Your task to perform on an android device: Open calendar and show me the fourth week of next month Image 0: 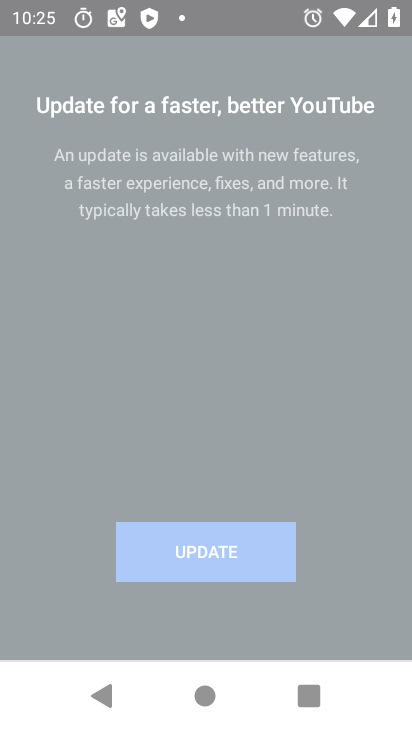
Step 0: drag from (214, 724) to (220, 121)
Your task to perform on an android device: Open calendar and show me the fourth week of next month Image 1: 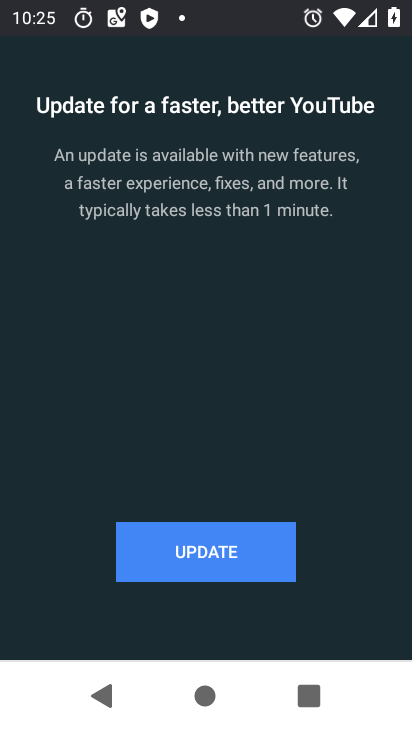
Step 1: press home button
Your task to perform on an android device: Open calendar and show me the fourth week of next month Image 2: 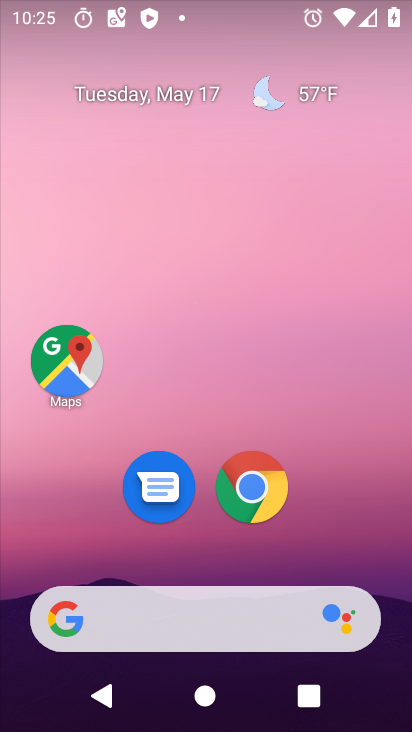
Step 2: drag from (230, 716) to (227, 87)
Your task to perform on an android device: Open calendar and show me the fourth week of next month Image 3: 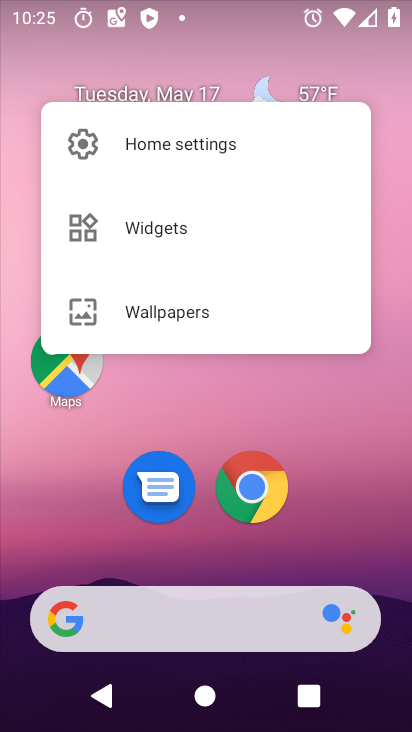
Step 3: click (198, 404)
Your task to perform on an android device: Open calendar and show me the fourth week of next month Image 4: 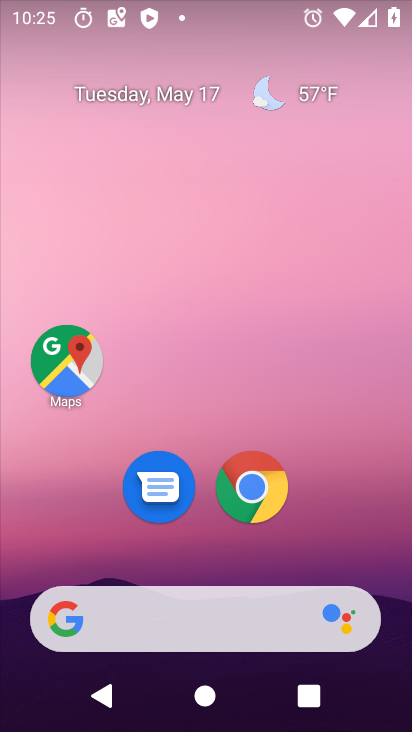
Step 4: drag from (234, 721) to (244, 47)
Your task to perform on an android device: Open calendar and show me the fourth week of next month Image 5: 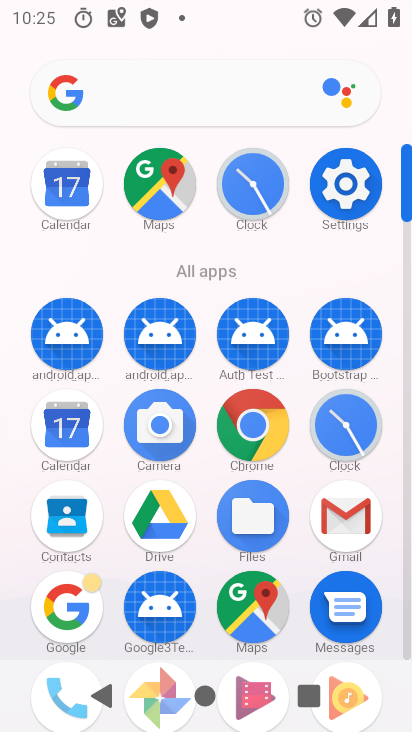
Step 5: click (54, 432)
Your task to perform on an android device: Open calendar and show me the fourth week of next month Image 6: 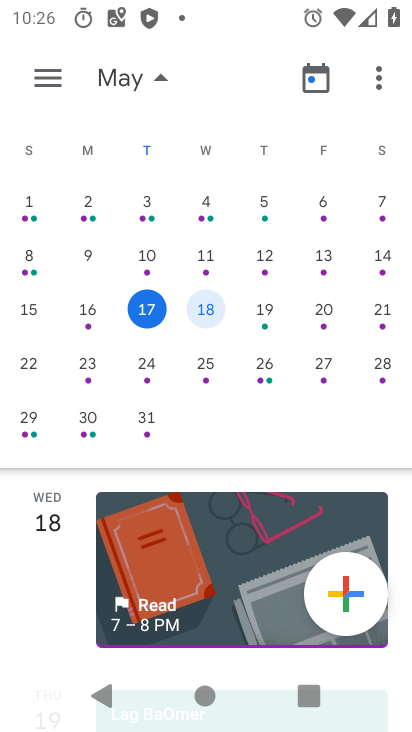
Step 6: drag from (366, 326) to (222, 319)
Your task to perform on an android device: Open calendar and show me the fourth week of next month Image 7: 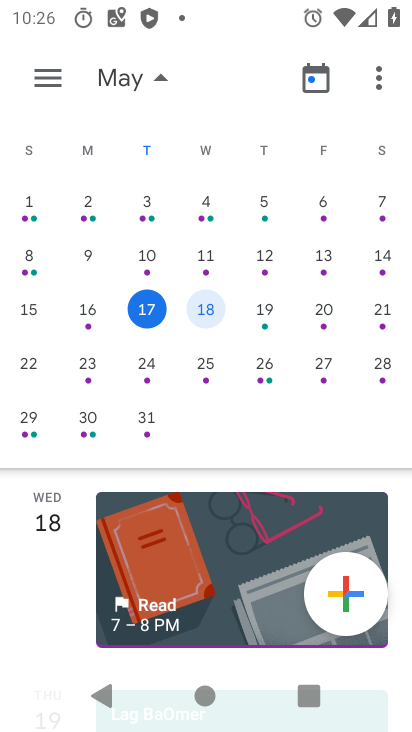
Step 7: drag from (117, 322) to (19, 309)
Your task to perform on an android device: Open calendar and show me the fourth week of next month Image 8: 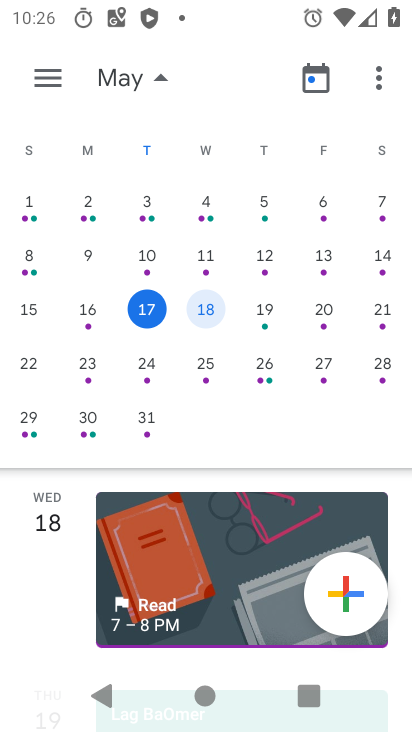
Step 8: drag from (362, 305) to (11, 526)
Your task to perform on an android device: Open calendar and show me the fourth week of next month Image 9: 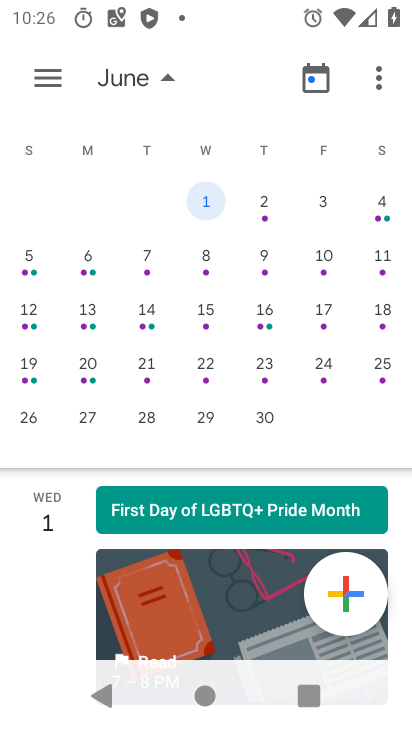
Step 9: click (78, 410)
Your task to perform on an android device: Open calendar and show me the fourth week of next month Image 10: 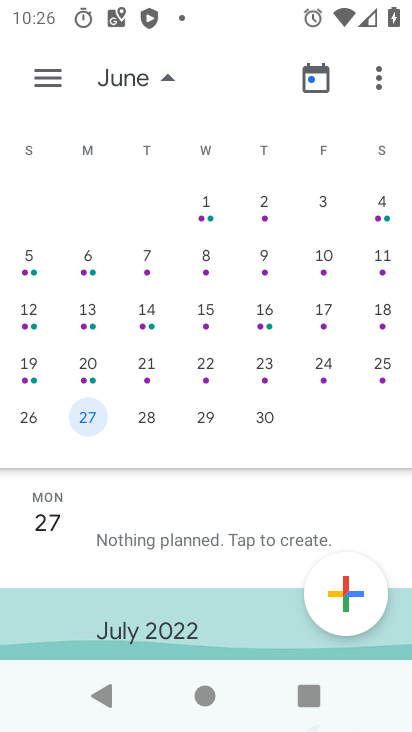
Step 10: click (38, 76)
Your task to perform on an android device: Open calendar and show me the fourth week of next month Image 11: 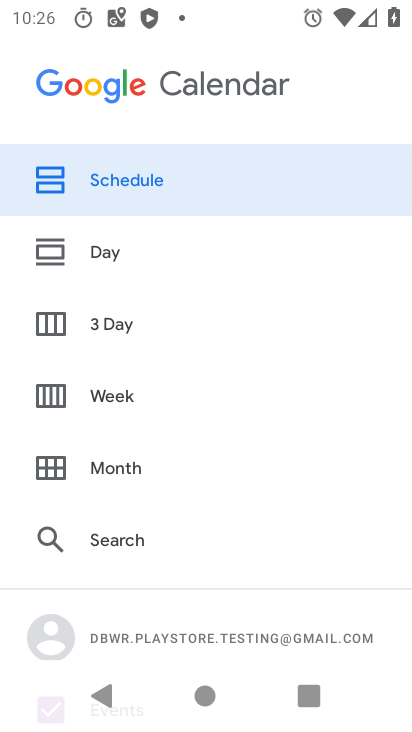
Step 11: click (117, 395)
Your task to perform on an android device: Open calendar and show me the fourth week of next month Image 12: 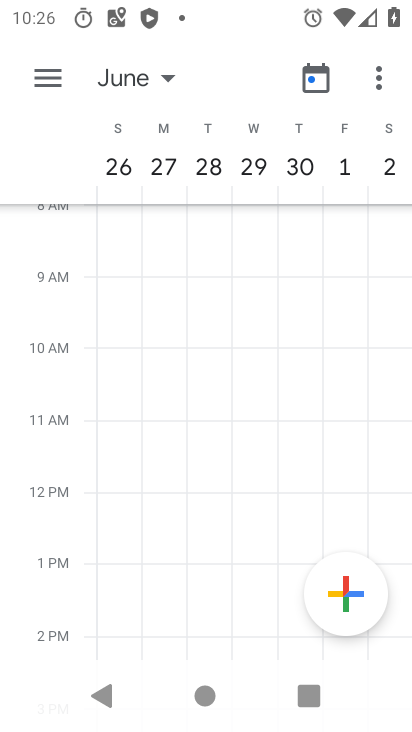
Step 12: task complete